Your task to perform on an android device: Open accessibility settings Image 0: 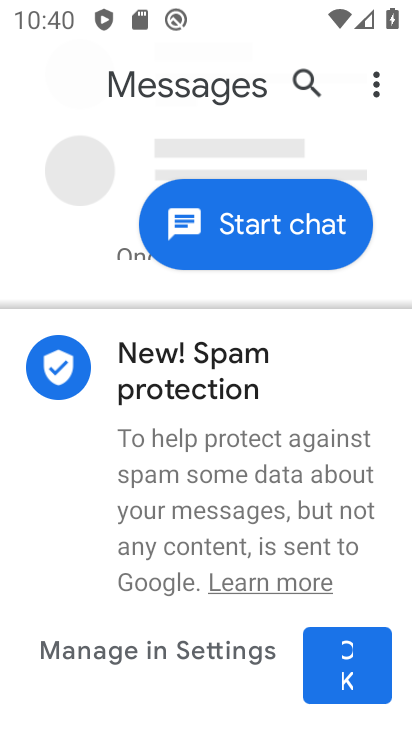
Step 0: press home button
Your task to perform on an android device: Open accessibility settings Image 1: 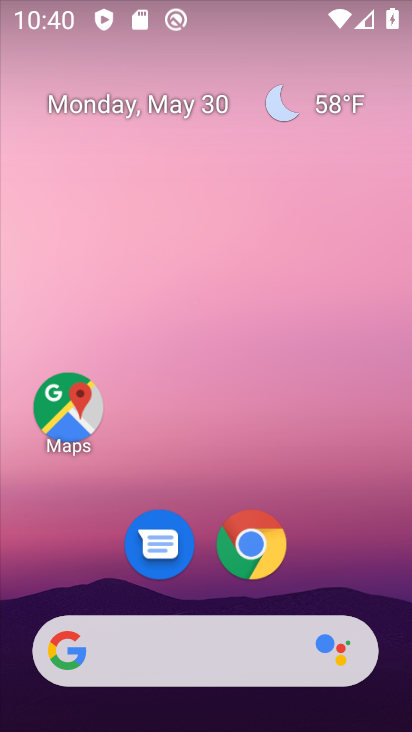
Step 1: drag from (367, 564) to (370, 10)
Your task to perform on an android device: Open accessibility settings Image 2: 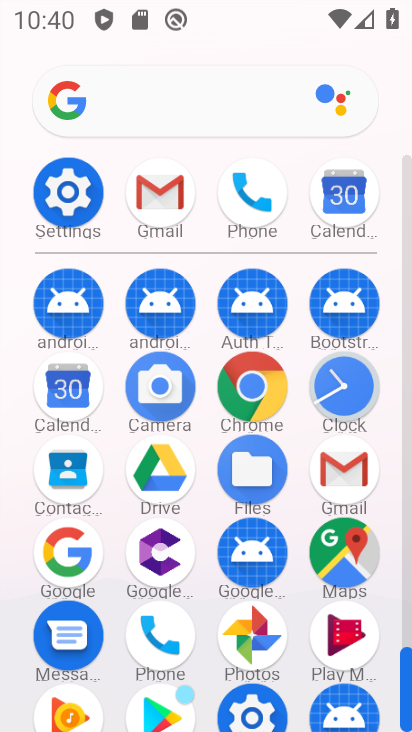
Step 2: click (76, 169)
Your task to perform on an android device: Open accessibility settings Image 3: 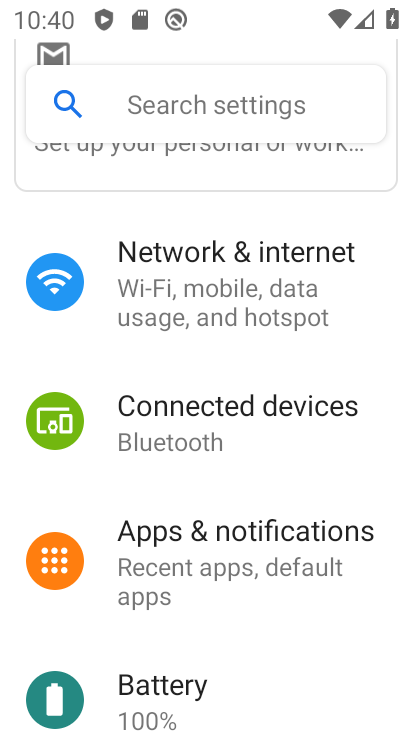
Step 3: drag from (248, 673) to (288, 214)
Your task to perform on an android device: Open accessibility settings Image 4: 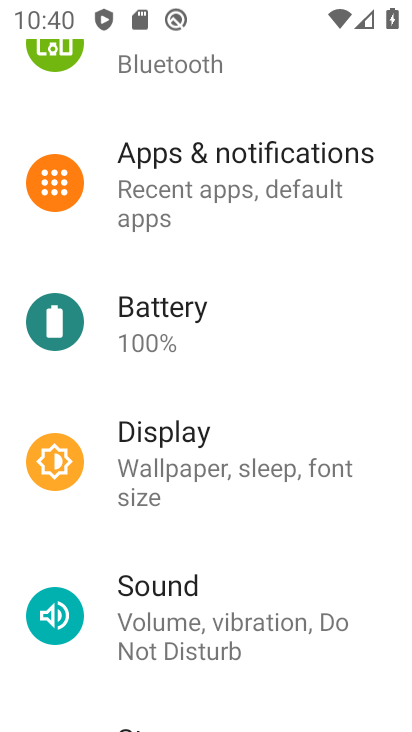
Step 4: drag from (196, 569) to (212, 212)
Your task to perform on an android device: Open accessibility settings Image 5: 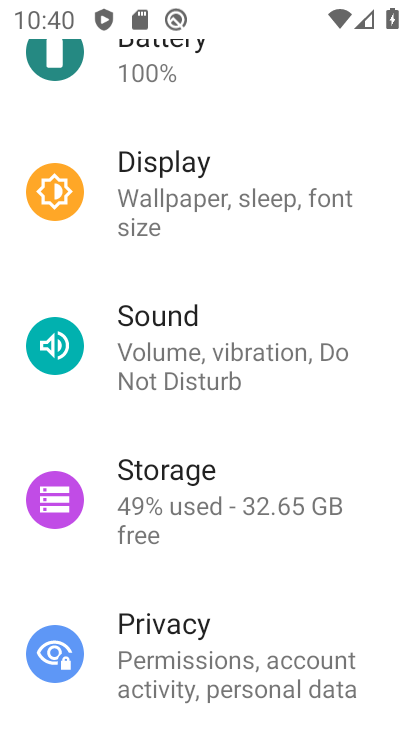
Step 5: drag from (235, 656) to (262, 302)
Your task to perform on an android device: Open accessibility settings Image 6: 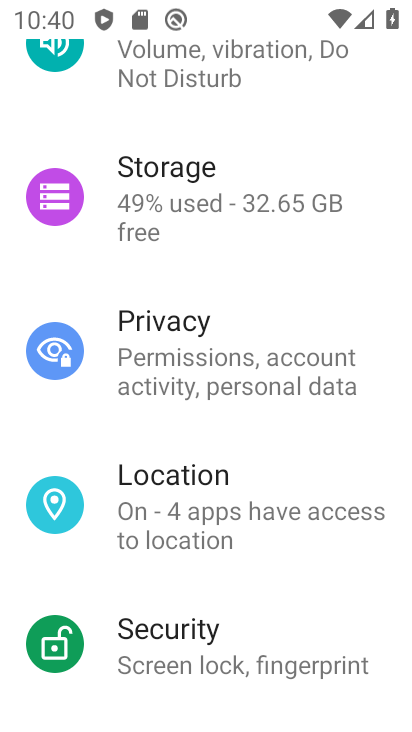
Step 6: drag from (236, 634) to (267, 313)
Your task to perform on an android device: Open accessibility settings Image 7: 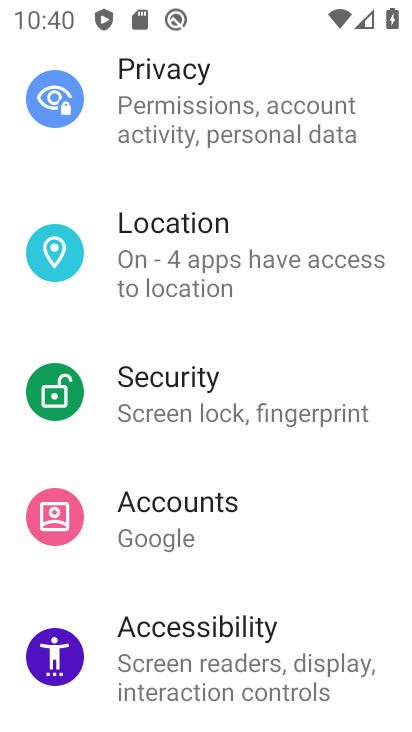
Step 7: click (243, 628)
Your task to perform on an android device: Open accessibility settings Image 8: 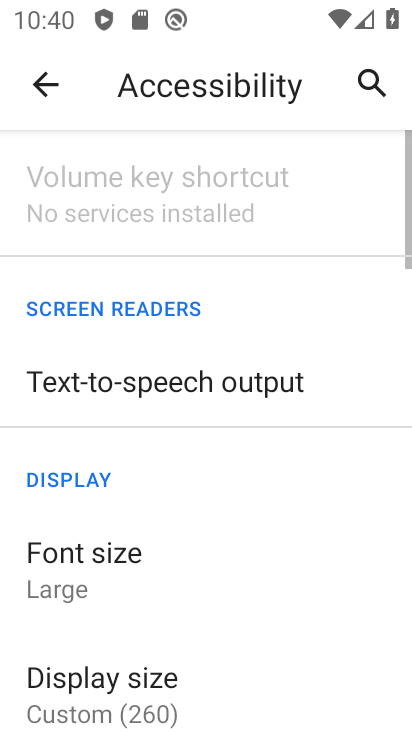
Step 8: task complete